Your task to perform on an android device: delete the emails in spam in the gmail app Image 0: 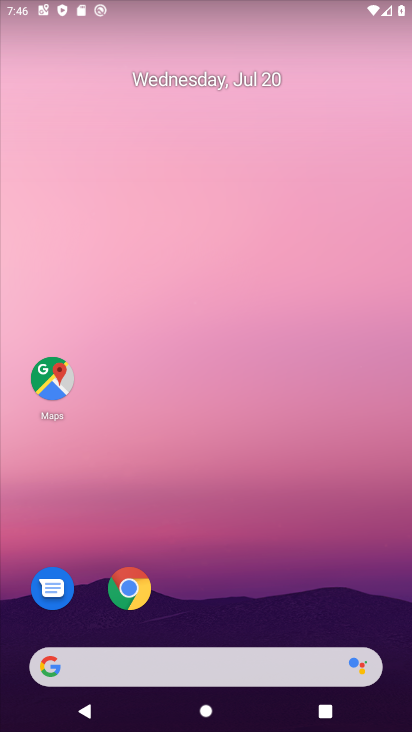
Step 0: drag from (170, 605) to (171, 1)
Your task to perform on an android device: delete the emails in spam in the gmail app Image 1: 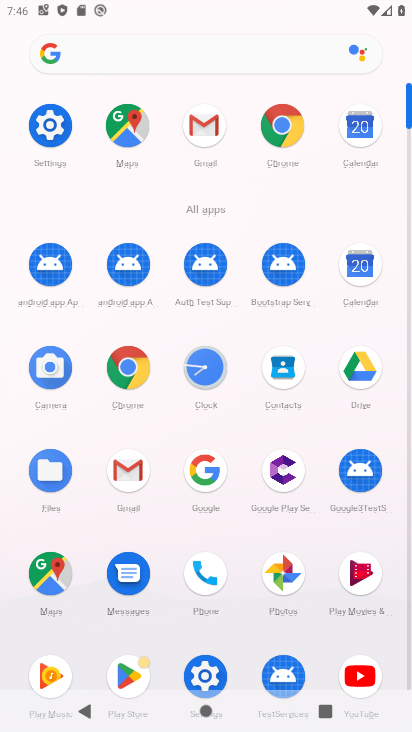
Step 1: click (201, 134)
Your task to perform on an android device: delete the emails in spam in the gmail app Image 2: 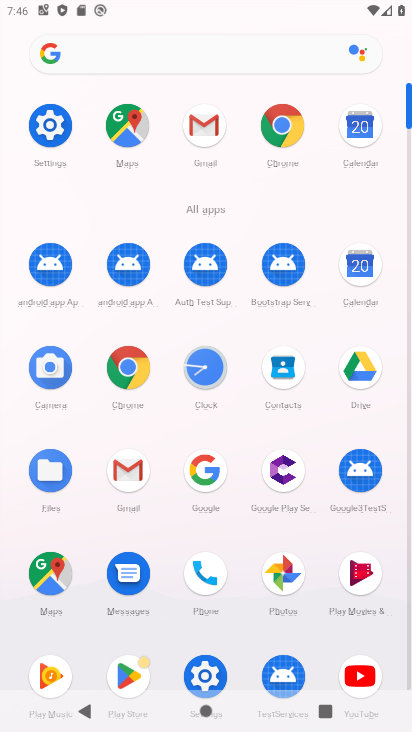
Step 2: click (201, 134)
Your task to perform on an android device: delete the emails in spam in the gmail app Image 3: 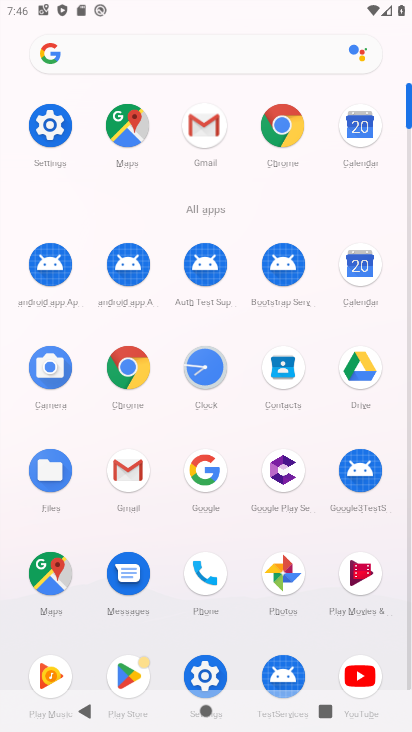
Step 3: click (201, 134)
Your task to perform on an android device: delete the emails in spam in the gmail app Image 4: 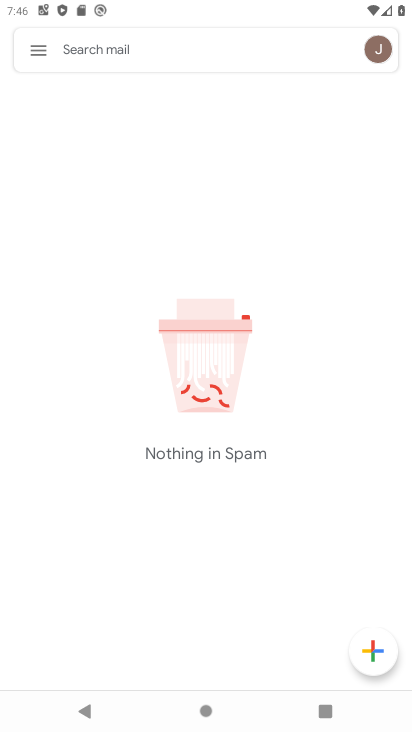
Step 4: task complete